Your task to perform on an android device: What's the weather going to be tomorrow? Image 0: 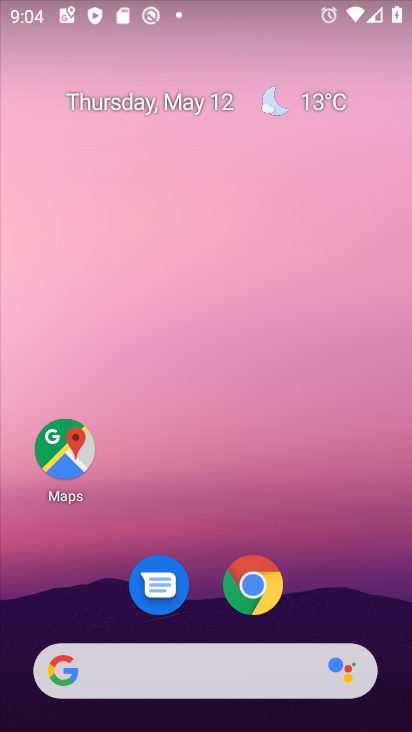
Step 0: click (340, 103)
Your task to perform on an android device: What's the weather going to be tomorrow? Image 1: 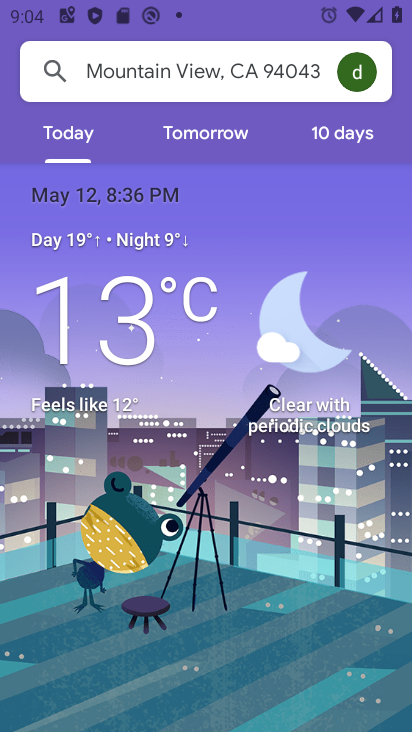
Step 1: click (211, 126)
Your task to perform on an android device: What's the weather going to be tomorrow? Image 2: 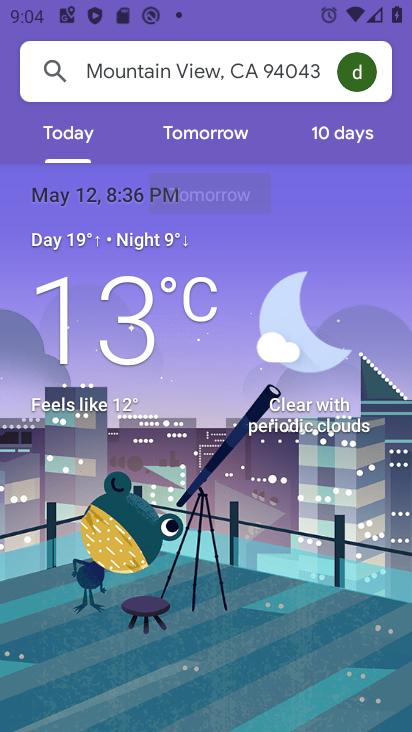
Step 2: click (211, 126)
Your task to perform on an android device: What's the weather going to be tomorrow? Image 3: 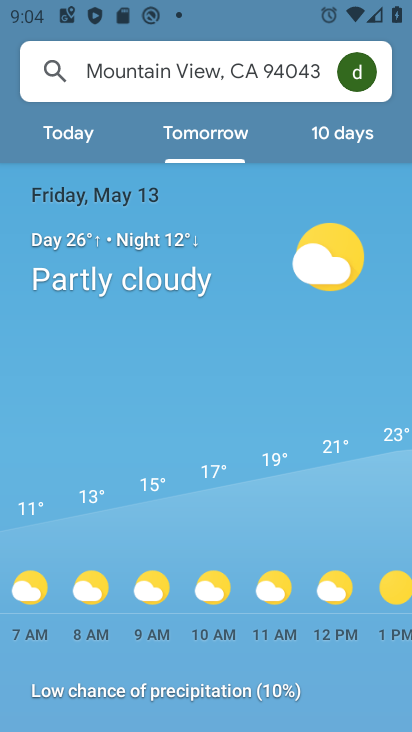
Step 3: task complete